Your task to perform on an android device: clear all cookies in the chrome app Image 0: 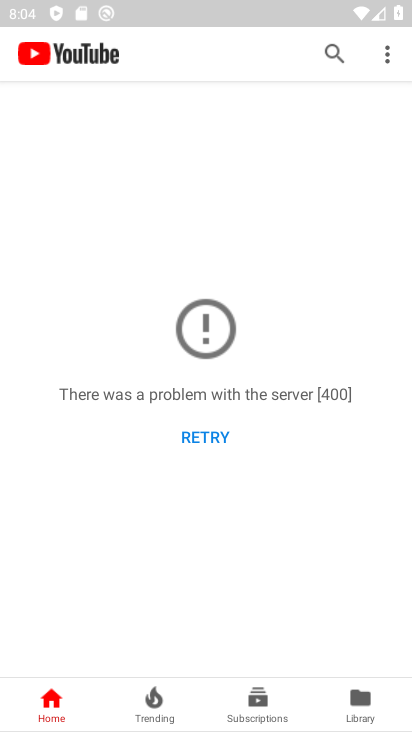
Step 0: press back button
Your task to perform on an android device: clear all cookies in the chrome app Image 1: 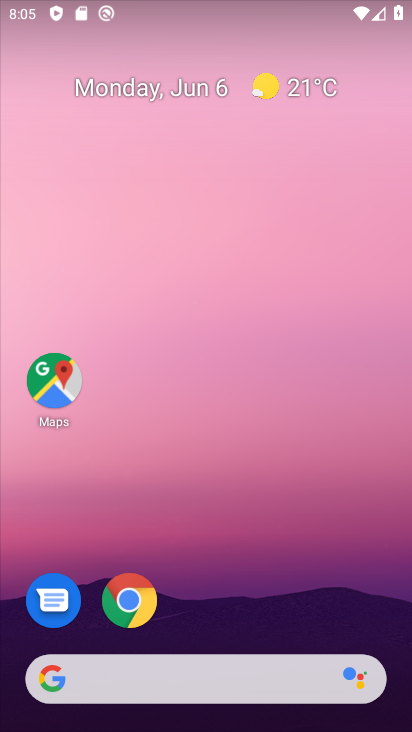
Step 1: drag from (241, 542) to (213, 30)
Your task to perform on an android device: clear all cookies in the chrome app Image 2: 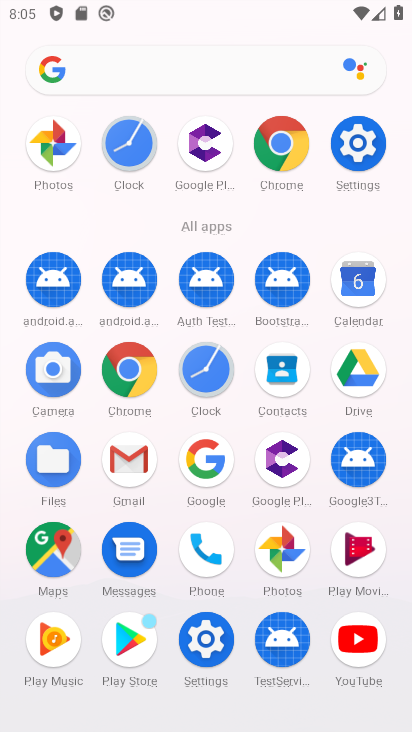
Step 2: click (279, 142)
Your task to perform on an android device: clear all cookies in the chrome app Image 3: 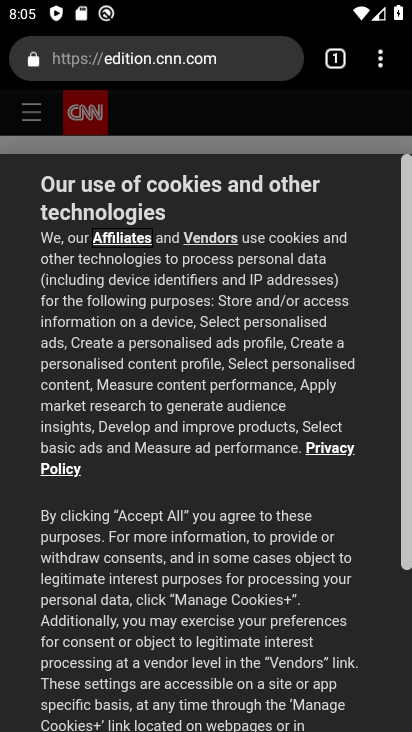
Step 3: drag from (379, 54) to (194, 623)
Your task to perform on an android device: clear all cookies in the chrome app Image 4: 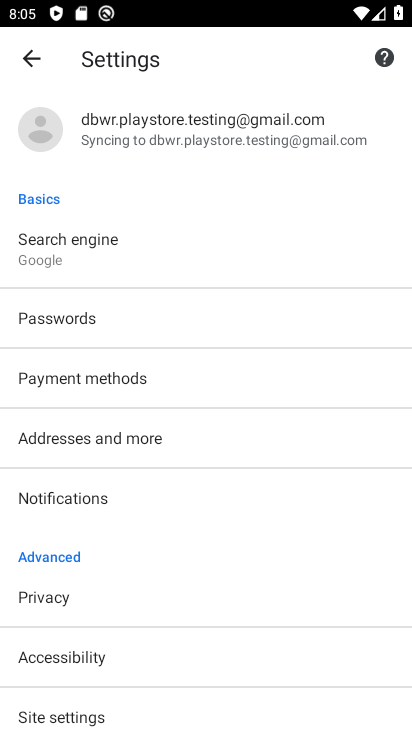
Step 4: drag from (215, 586) to (245, 211)
Your task to perform on an android device: clear all cookies in the chrome app Image 5: 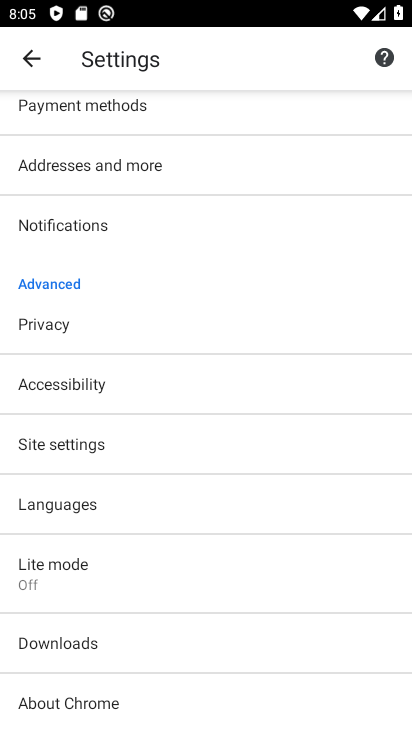
Step 5: drag from (186, 355) to (201, 254)
Your task to perform on an android device: clear all cookies in the chrome app Image 6: 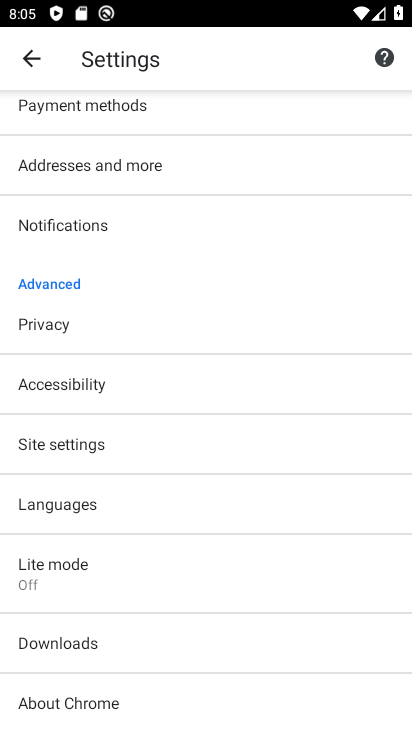
Step 6: click (73, 316)
Your task to perform on an android device: clear all cookies in the chrome app Image 7: 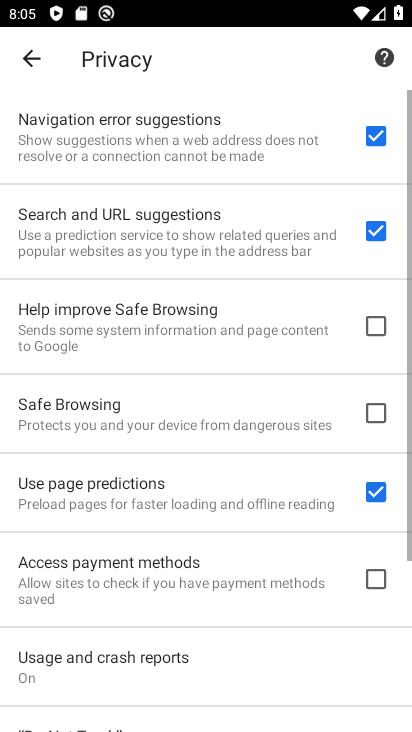
Step 7: drag from (191, 680) to (253, 215)
Your task to perform on an android device: clear all cookies in the chrome app Image 8: 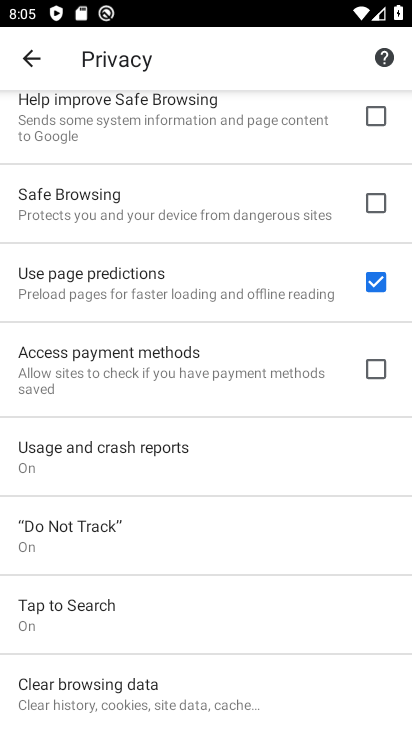
Step 8: click (159, 681)
Your task to perform on an android device: clear all cookies in the chrome app Image 9: 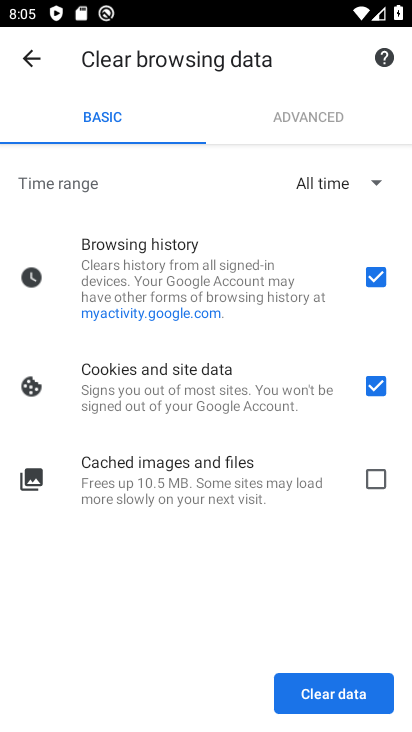
Step 9: click (334, 700)
Your task to perform on an android device: clear all cookies in the chrome app Image 10: 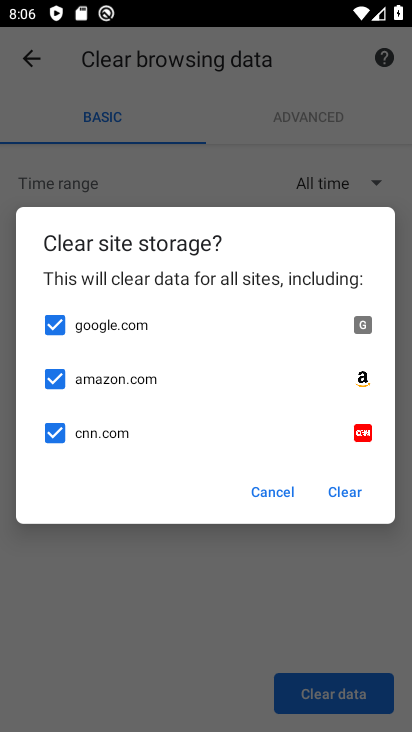
Step 10: click (336, 485)
Your task to perform on an android device: clear all cookies in the chrome app Image 11: 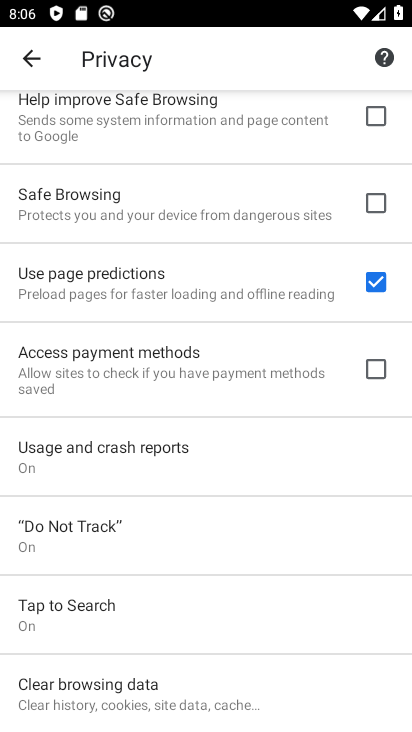
Step 11: task complete